Your task to perform on an android device: turn off data saver in the chrome app Image 0: 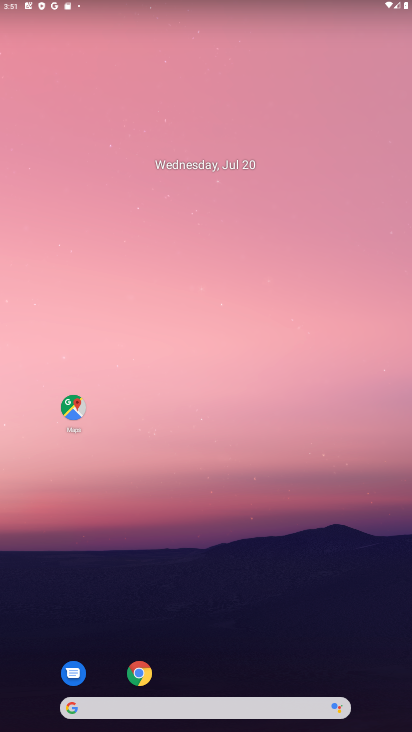
Step 0: press home button
Your task to perform on an android device: turn off data saver in the chrome app Image 1: 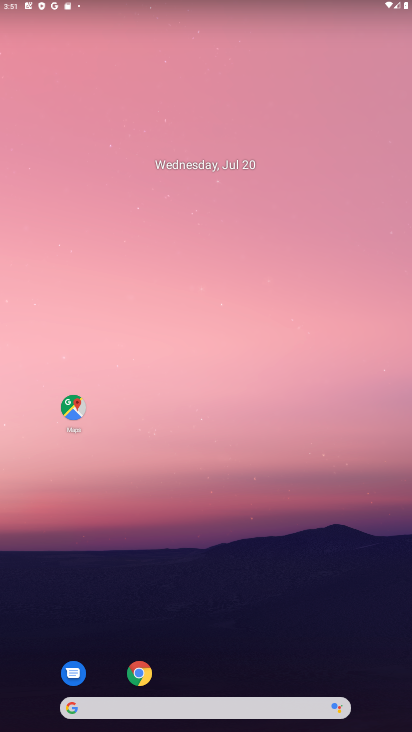
Step 1: drag from (288, 630) to (266, 101)
Your task to perform on an android device: turn off data saver in the chrome app Image 2: 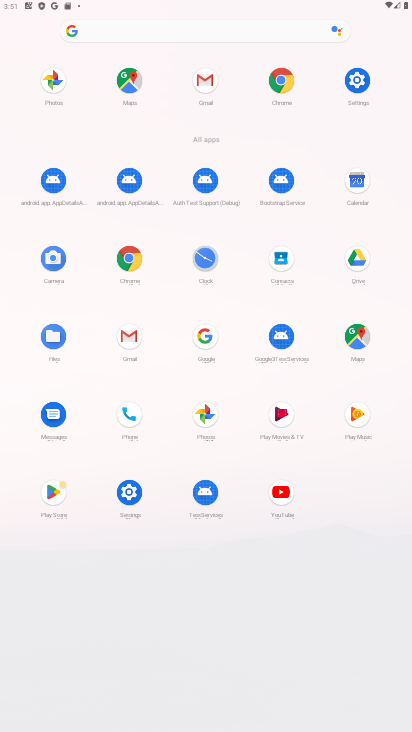
Step 2: click (290, 77)
Your task to perform on an android device: turn off data saver in the chrome app Image 3: 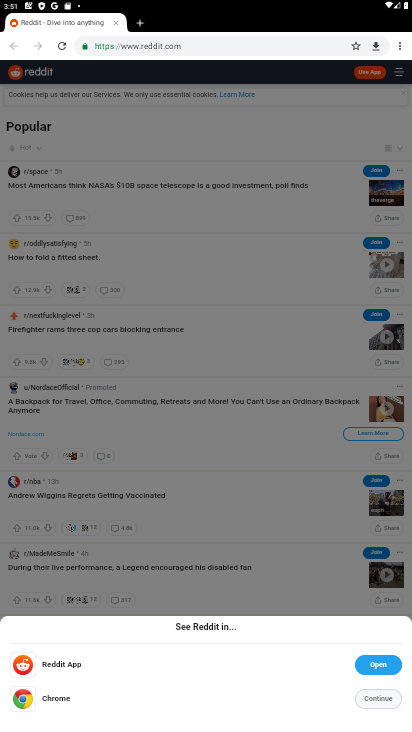
Step 3: drag from (397, 46) to (296, 336)
Your task to perform on an android device: turn off data saver in the chrome app Image 4: 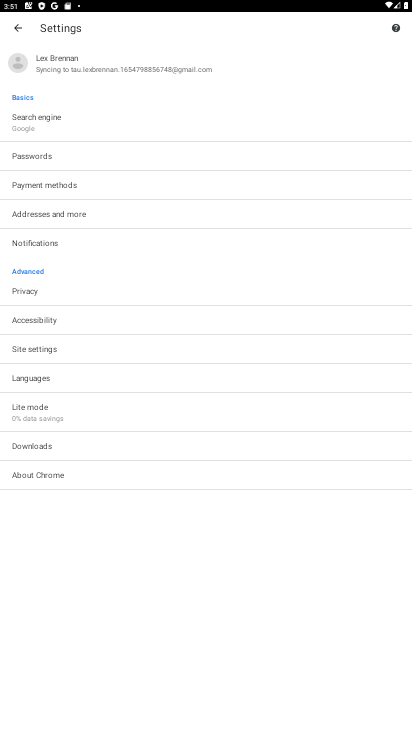
Step 4: click (33, 416)
Your task to perform on an android device: turn off data saver in the chrome app Image 5: 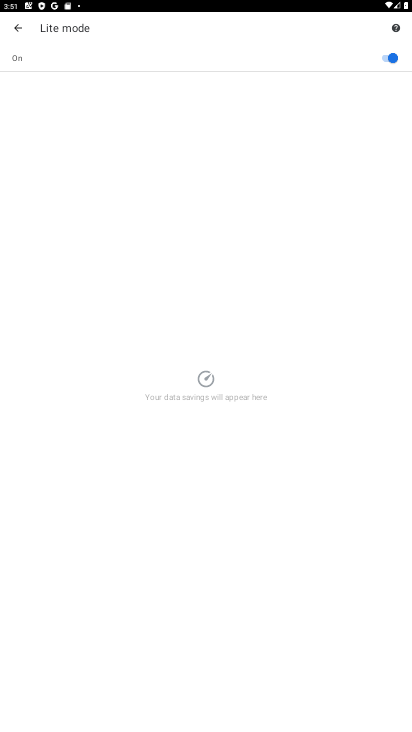
Step 5: click (394, 63)
Your task to perform on an android device: turn off data saver in the chrome app Image 6: 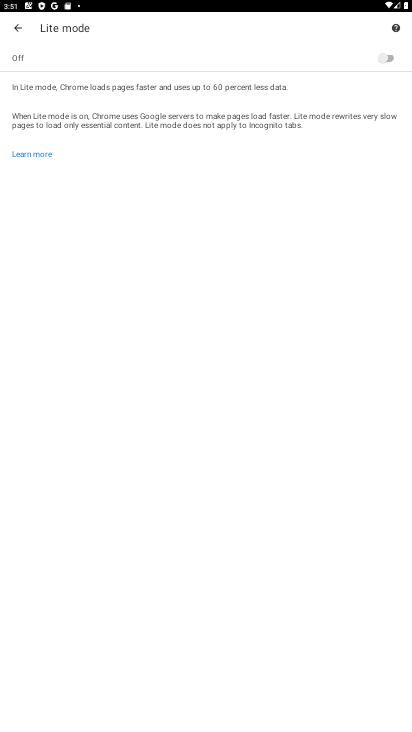
Step 6: task complete